Your task to perform on an android device: change keyboard looks Image 0: 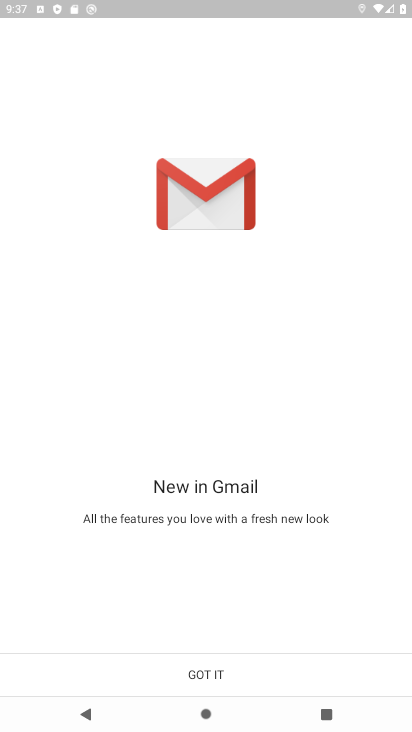
Step 0: click (238, 666)
Your task to perform on an android device: change keyboard looks Image 1: 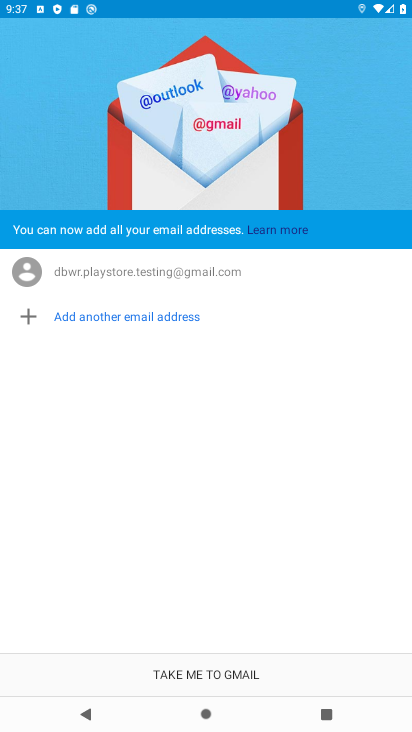
Step 1: click (228, 670)
Your task to perform on an android device: change keyboard looks Image 2: 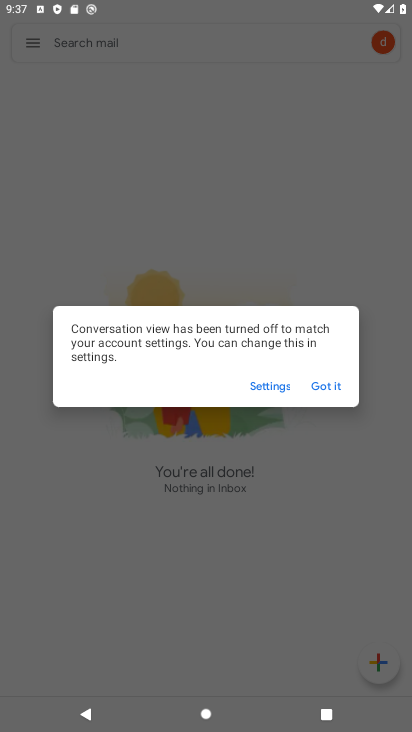
Step 2: press home button
Your task to perform on an android device: change keyboard looks Image 3: 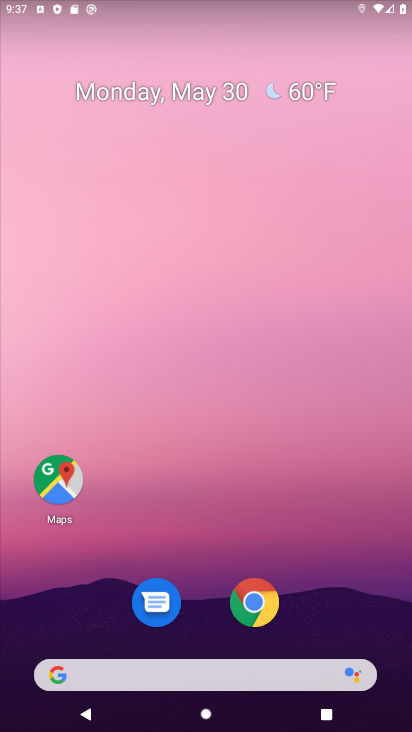
Step 3: drag from (217, 560) to (197, 72)
Your task to perform on an android device: change keyboard looks Image 4: 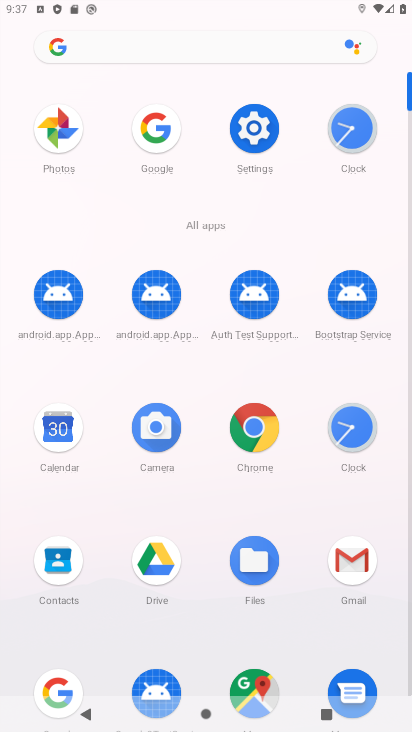
Step 4: click (234, 133)
Your task to perform on an android device: change keyboard looks Image 5: 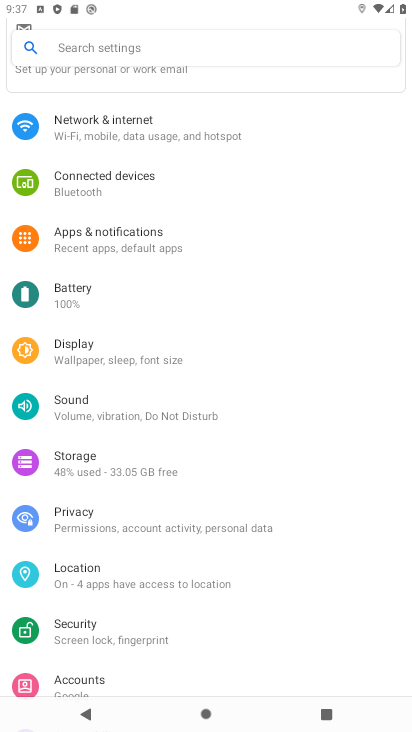
Step 5: drag from (168, 549) to (159, 176)
Your task to perform on an android device: change keyboard looks Image 6: 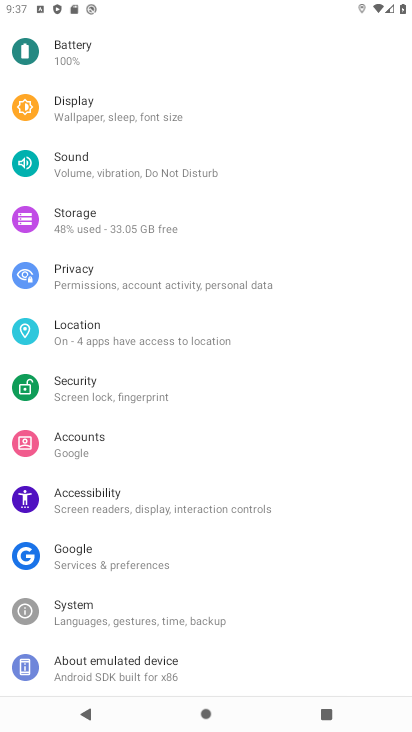
Step 6: drag from (158, 496) to (165, 208)
Your task to perform on an android device: change keyboard looks Image 7: 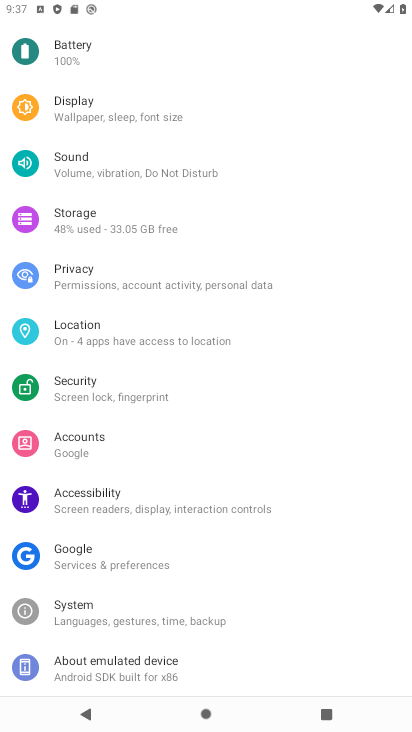
Step 7: click (103, 626)
Your task to perform on an android device: change keyboard looks Image 8: 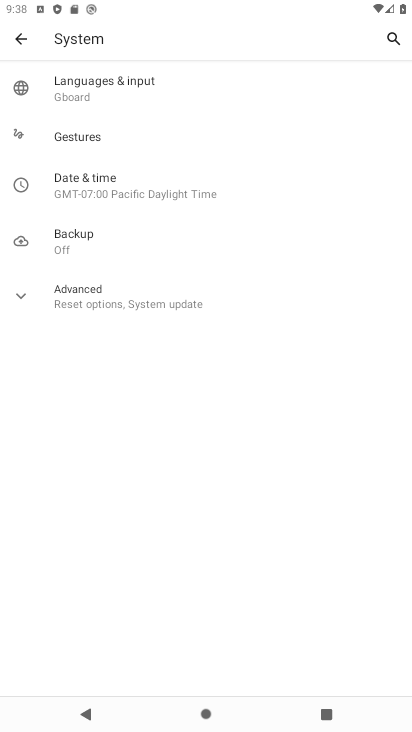
Step 8: click (93, 103)
Your task to perform on an android device: change keyboard looks Image 9: 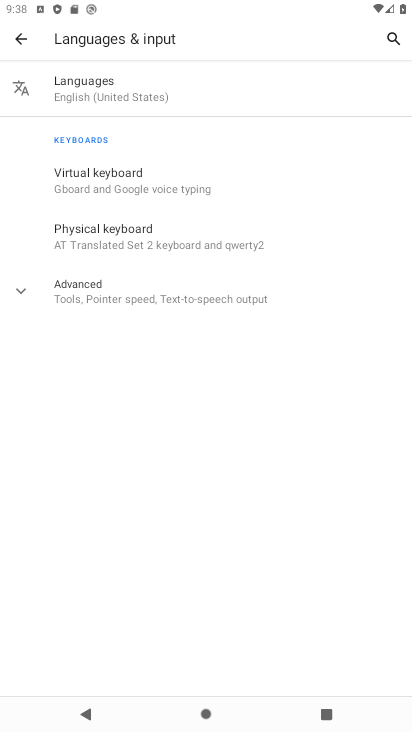
Step 9: click (123, 180)
Your task to perform on an android device: change keyboard looks Image 10: 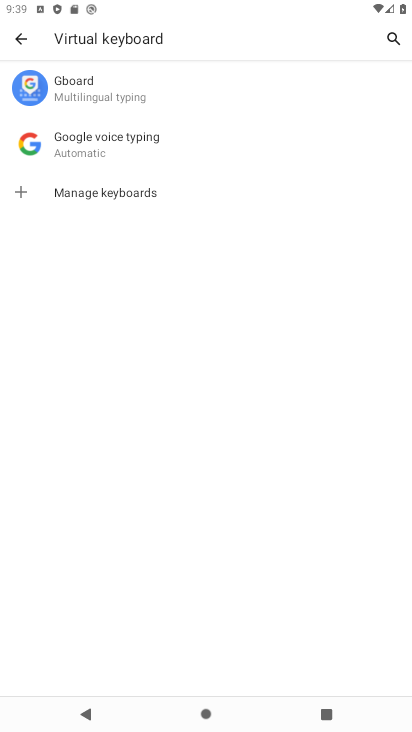
Step 10: click (152, 77)
Your task to perform on an android device: change keyboard looks Image 11: 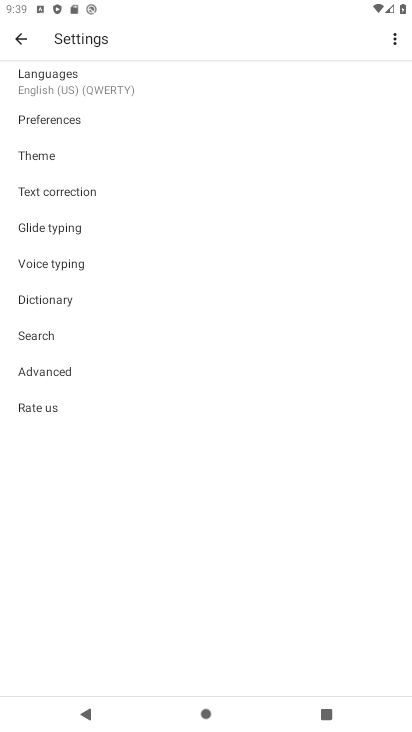
Step 11: click (78, 149)
Your task to perform on an android device: change keyboard looks Image 12: 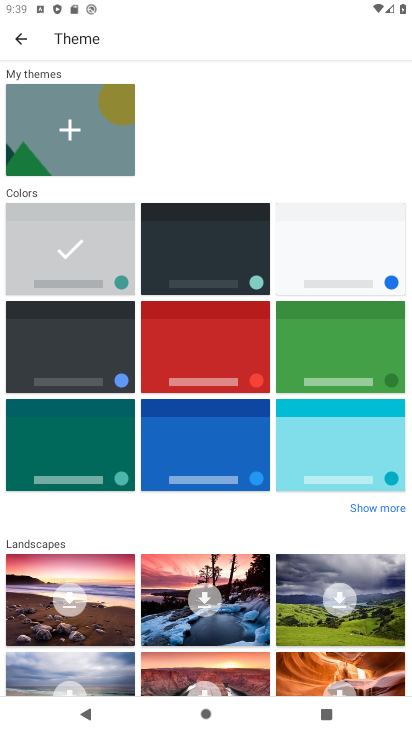
Step 12: click (160, 263)
Your task to perform on an android device: change keyboard looks Image 13: 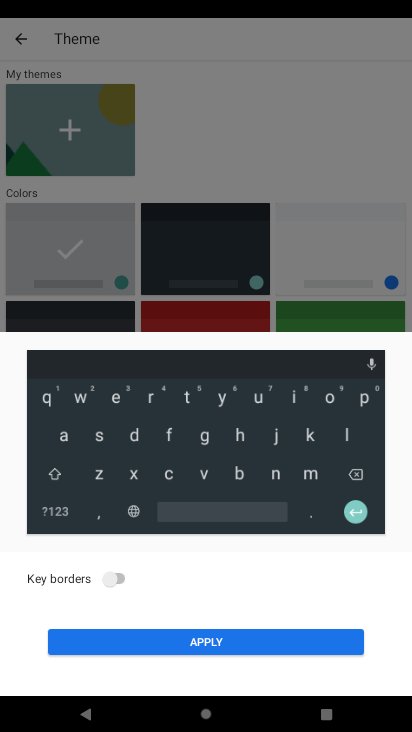
Step 13: click (332, 641)
Your task to perform on an android device: change keyboard looks Image 14: 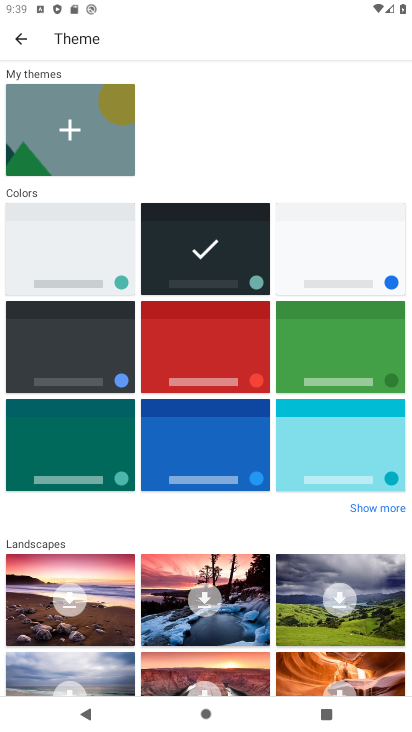
Step 14: task complete